Your task to perform on an android device: Open eBay Image 0: 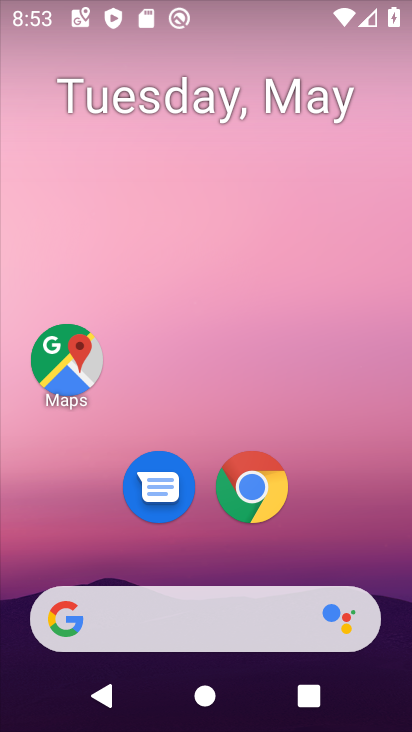
Step 0: drag from (372, 545) to (353, 205)
Your task to perform on an android device: Open eBay Image 1: 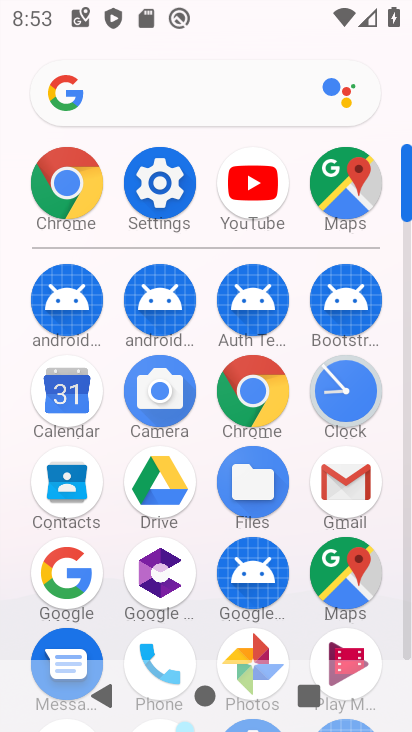
Step 1: click (266, 395)
Your task to perform on an android device: Open eBay Image 2: 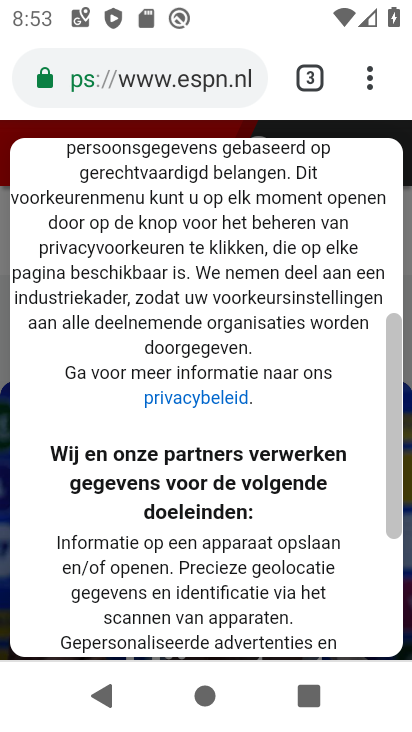
Step 2: click (203, 85)
Your task to perform on an android device: Open eBay Image 3: 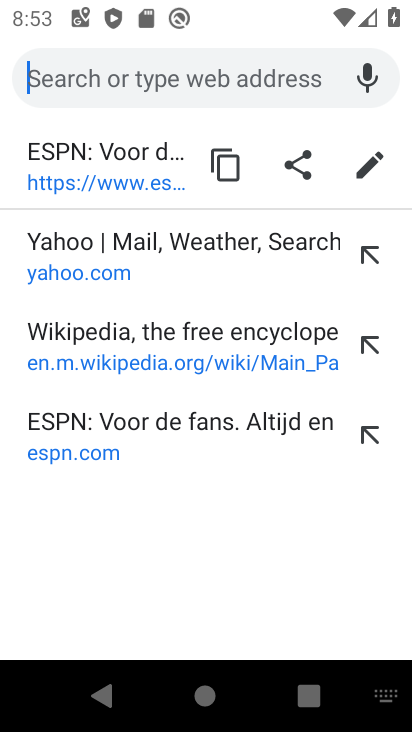
Step 3: type "ebay"
Your task to perform on an android device: Open eBay Image 4: 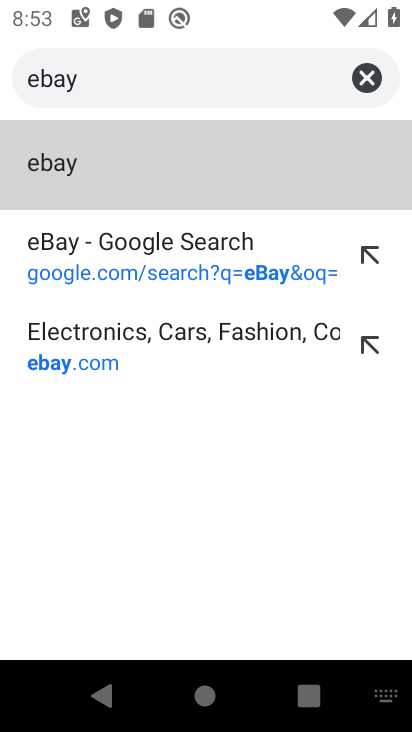
Step 4: click (242, 262)
Your task to perform on an android device: Open eBay Image 5: 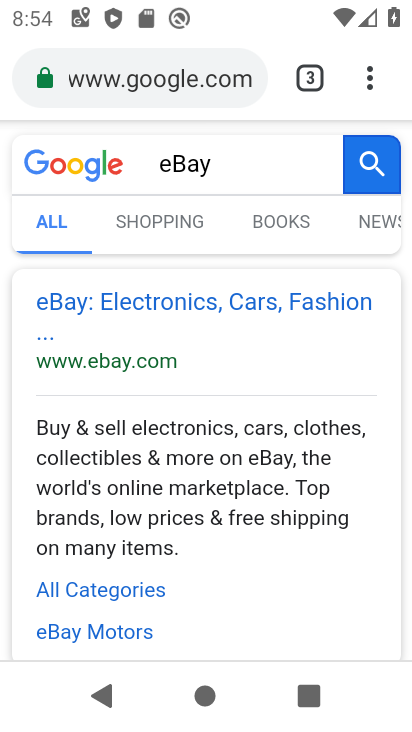
Step 5: task complete